Your task to perform on an android device: turn on bluetooth scan Image 0: 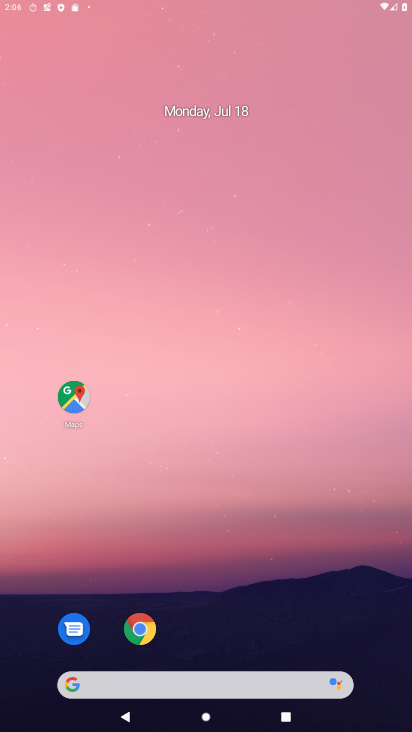
Step 0: press home button
Your task to perform on an android device: turn on bluetooth scan Image 1: 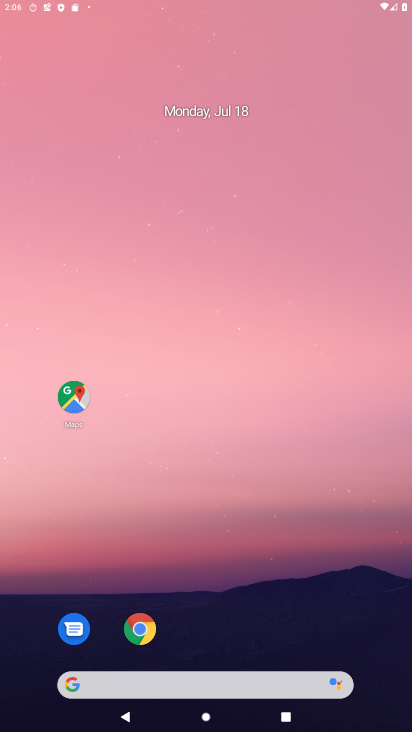
Step 1: drag from (230, 642) to (255, 72)
Your task to perform on an android device: turn on bluetooth scan Image 2: 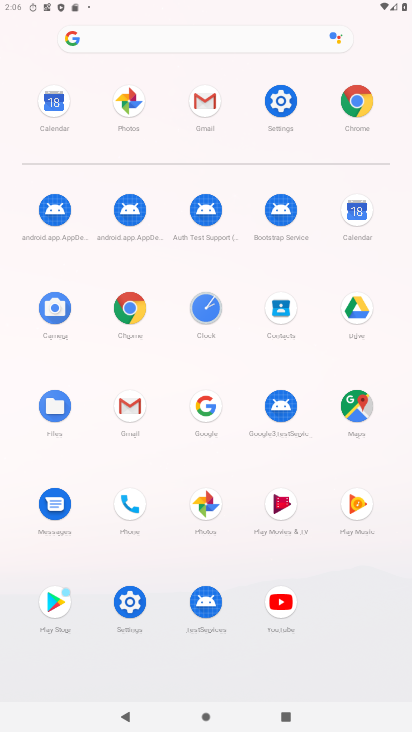
Step 2: click (279, 98)
Your task to perform on an android device: turn on bluetooth scan Image 3: 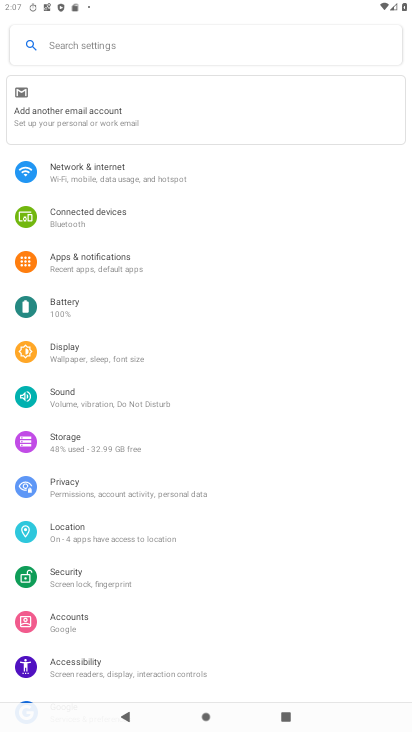
Step 3: click (101, 531)
Your task to perform on an android device: turn on bluetooth scan Image 4: 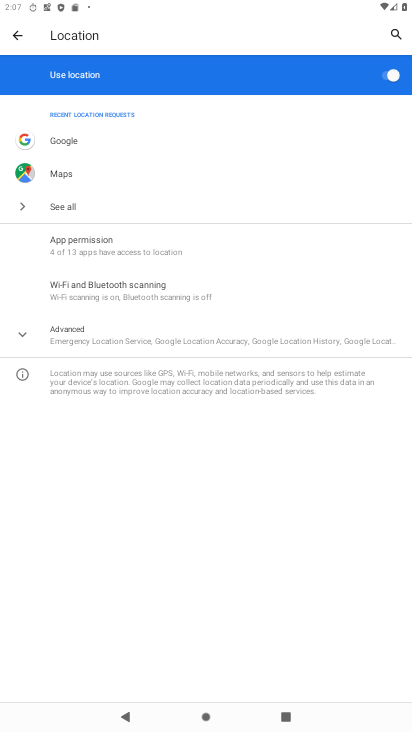
Step 4: click (129, 279)
Your task to perform on an android device: turn on bluetooth scan Image 5: 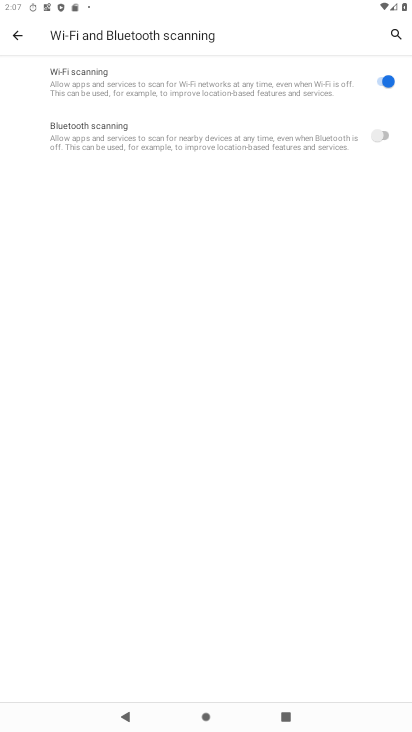
Step 5: click (376, 127)
Your task to perform on an android device: turn on bluetooth scan Image 6: 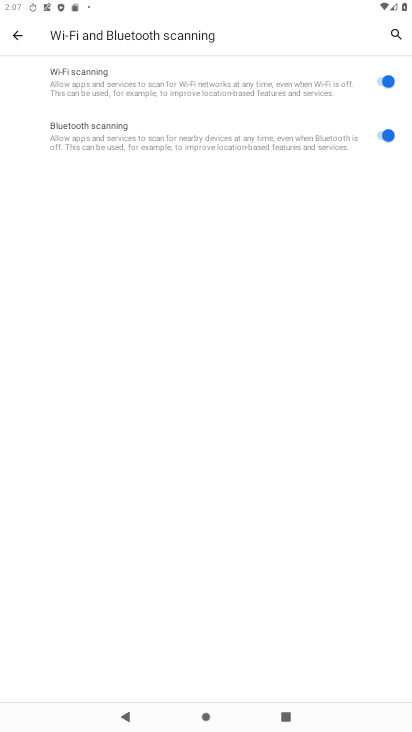
Step 6: task complete